Your task to perform on an android device: What's the weather like in Beijing? Image 0: 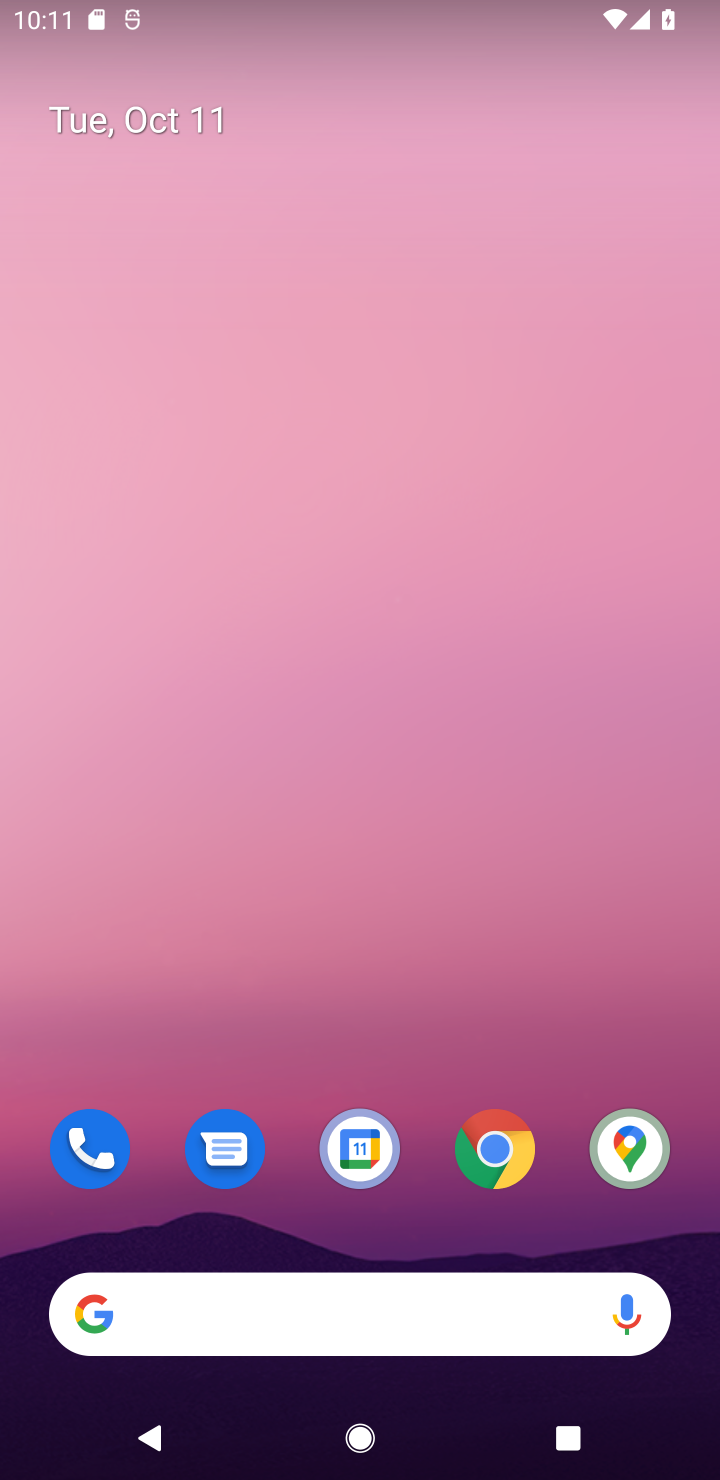
Step 0: drag from (360, 1058) to (298, 248)
Your task to perform on an android device: What's the weather like in Beijing? Image 1: 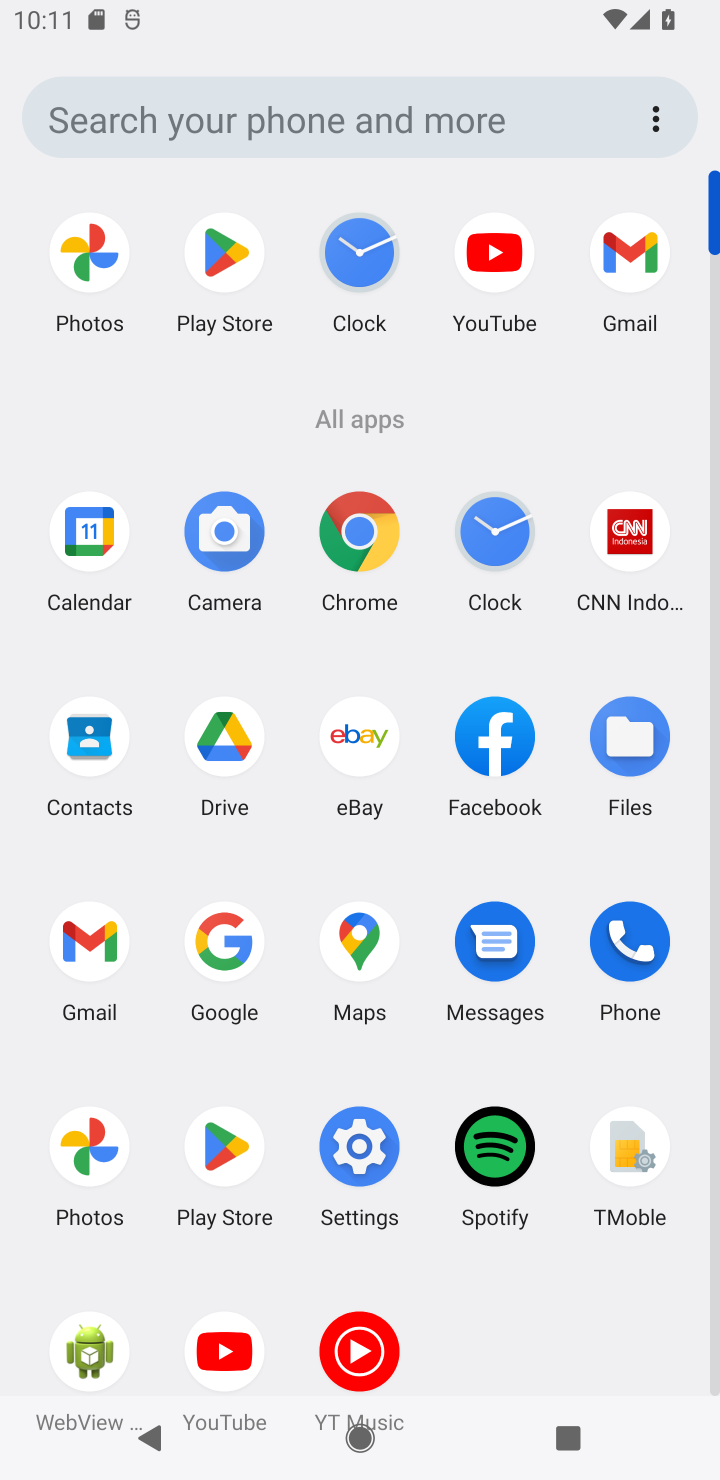
Step 1: click (232, 949)
Your task to perform on an android device: What's the weather like in Beijing? Image 2: 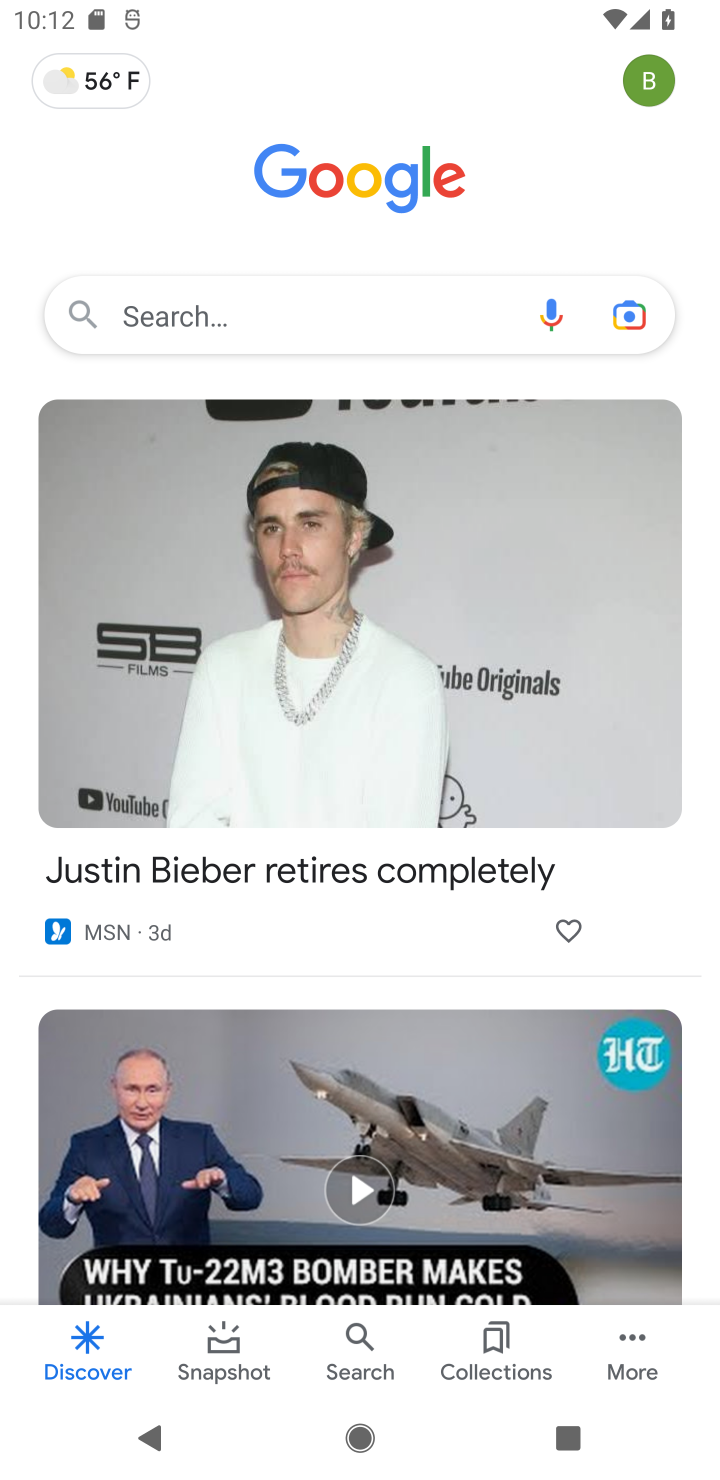
Step 2: click (271, 300)
Your task to perform on an android device: What's the weather like in Beijing? Image 3: 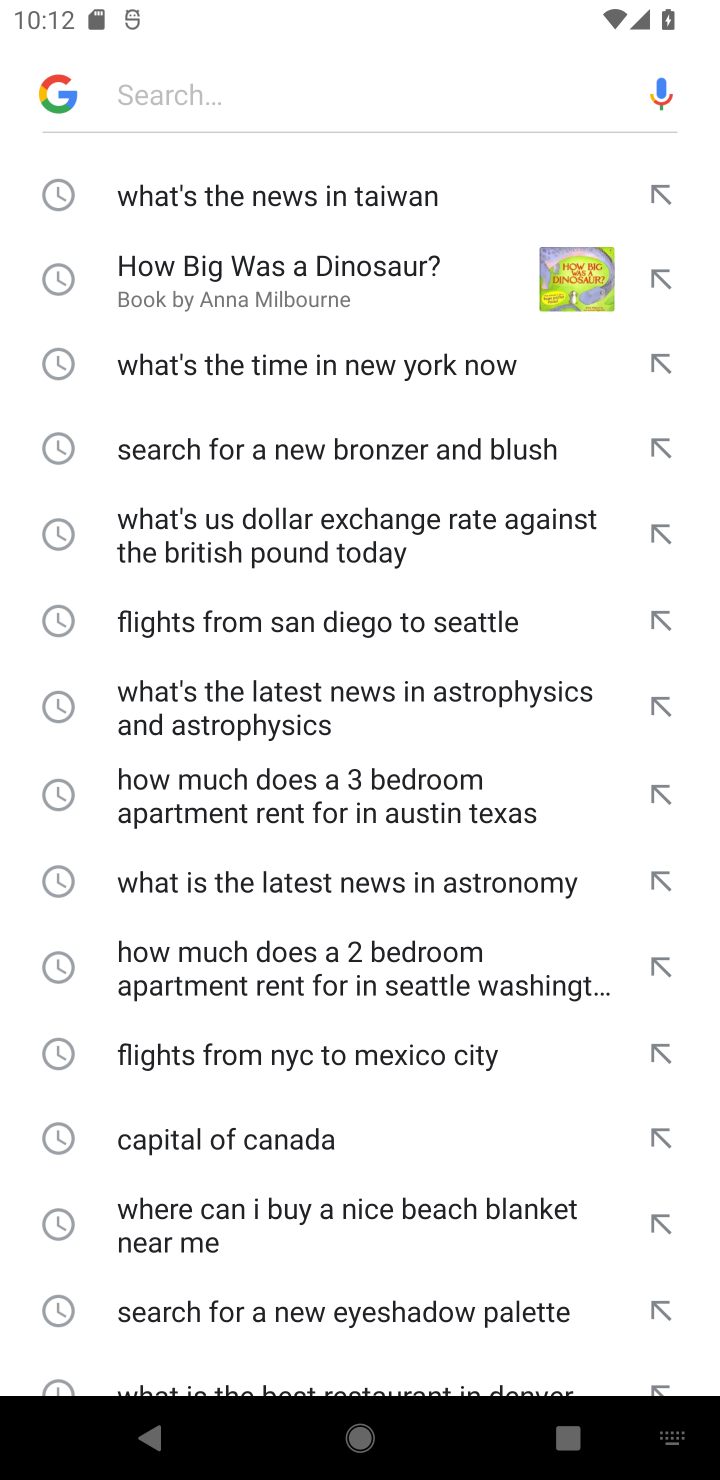
Step 3: type "What's the weather like in Beijing?"
Your task to perform on an android device: What's the weather like in Beijing? Image 4: 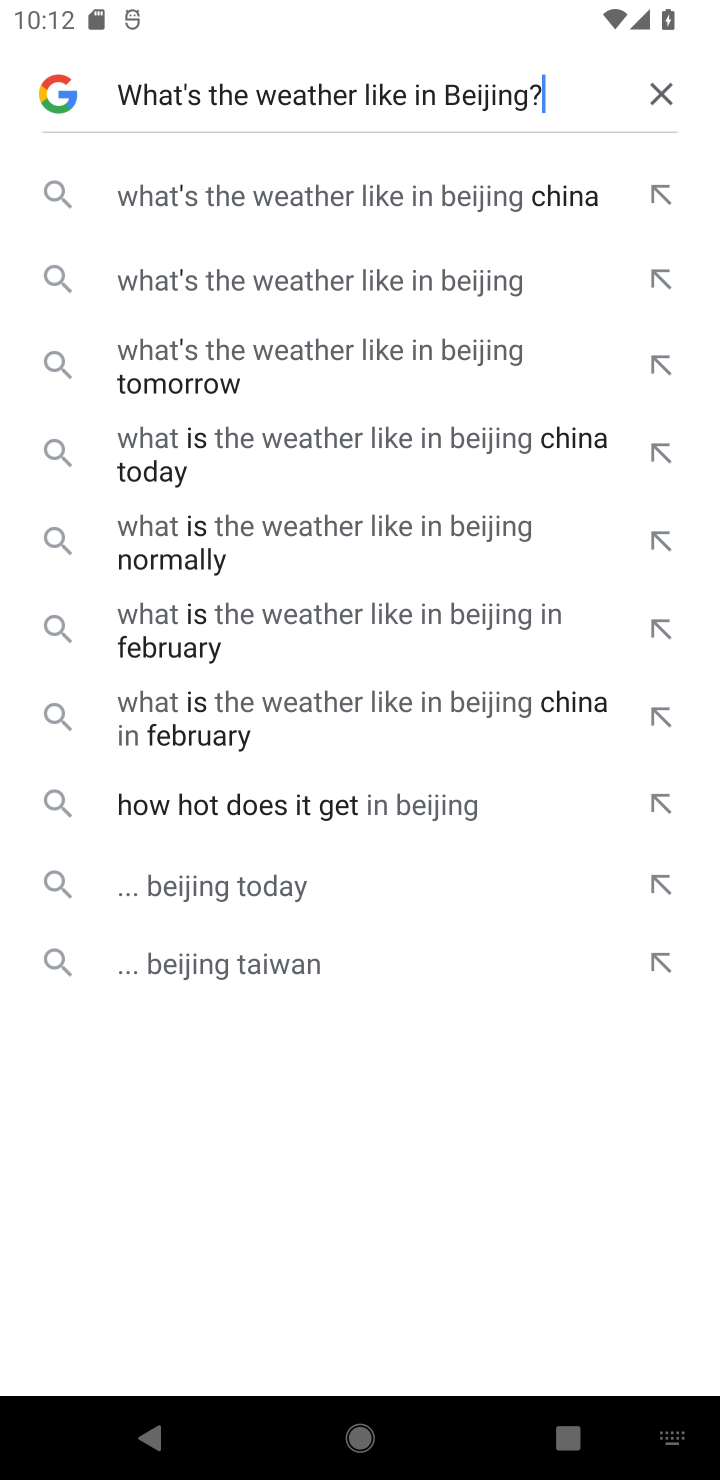
Step 4: click (521, 205)
Your task to perform on an android device: What's the weather like in Beijing? Image 5: 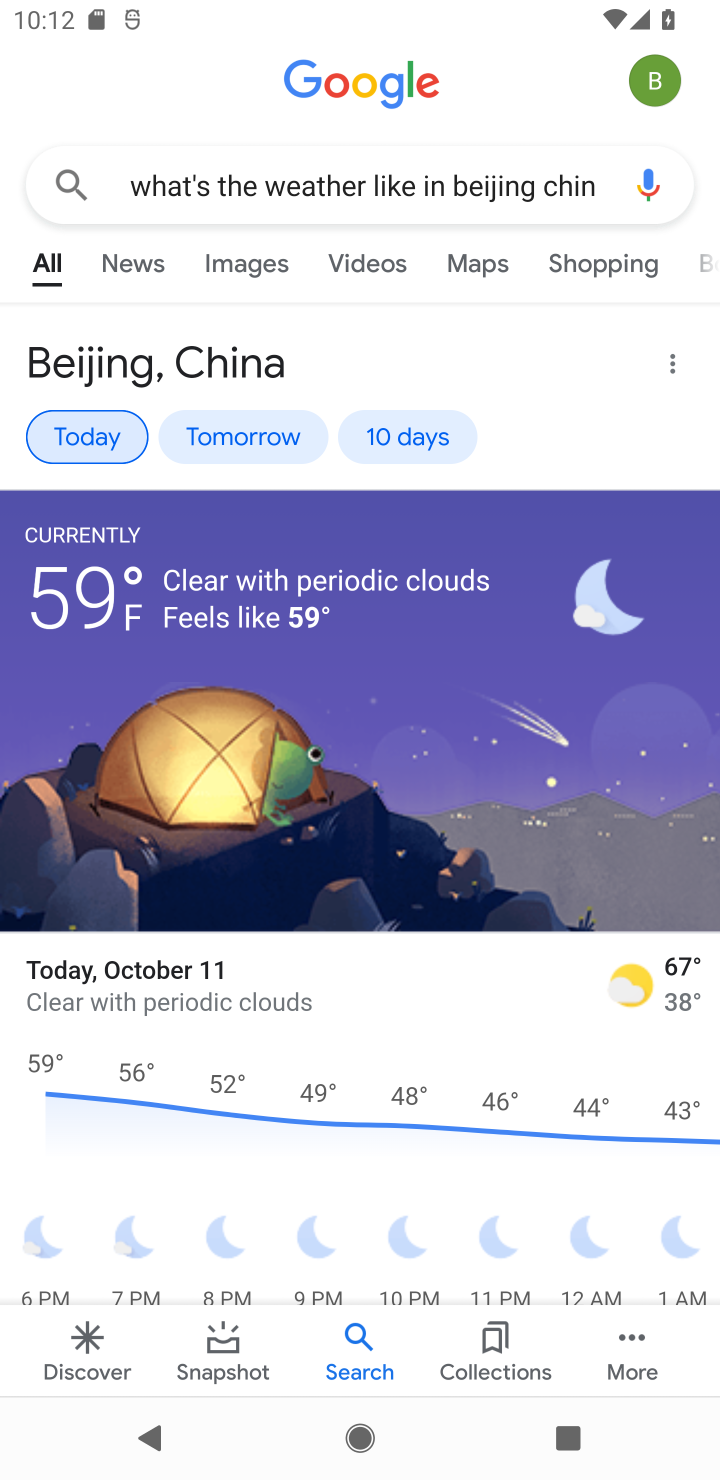
Step 5: task complete